Your task to perform on an android device: Clear the cart on walmart.com. Image 0: 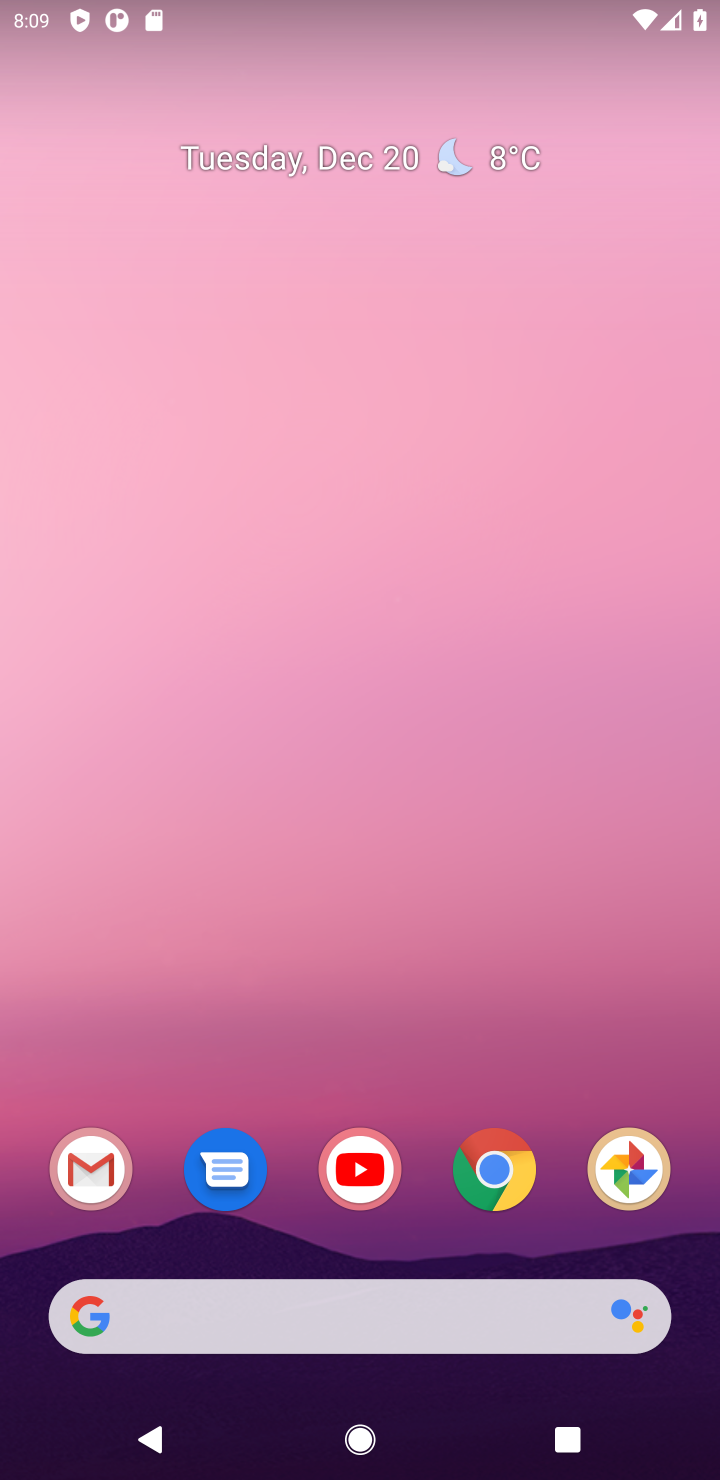
Step 0: task complete